Your task to perform on an android device: toggle notification dots Image 0: 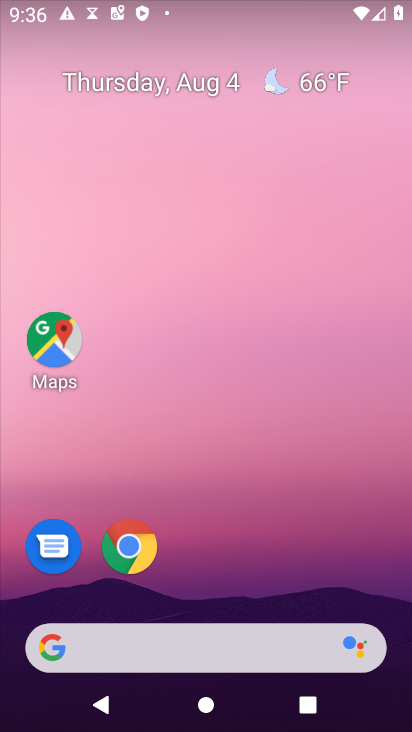
Step 0: press home button
Your task to perform on an android device: toggle notification dots Image 1: 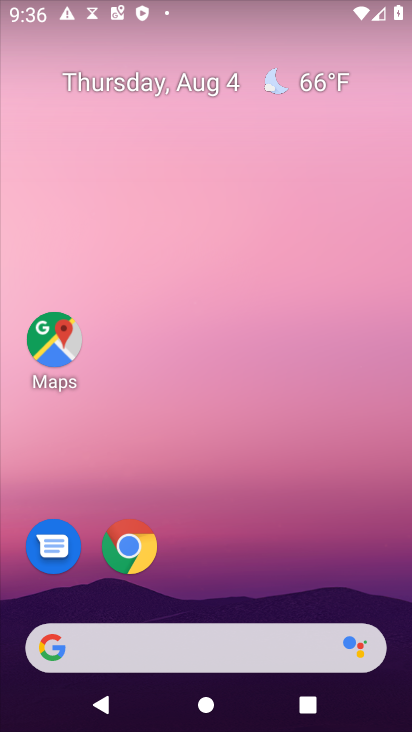
Step 1: drag from (250, 602) to (307, 88)
Your task to perform on an android device: toggle notification dots Image 2: 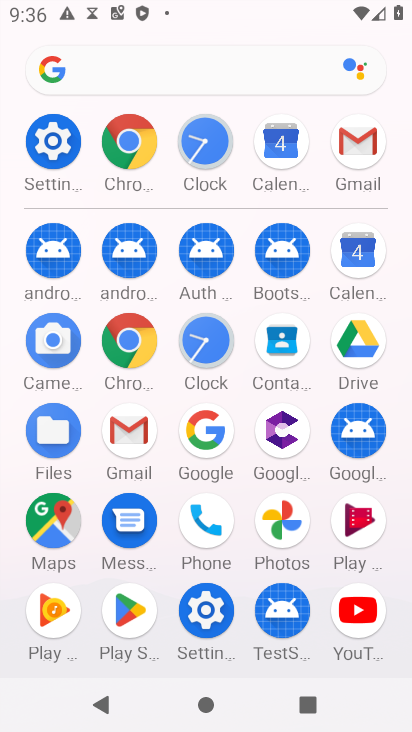
Step 2: click (46, 164)
Your task to perform on an android device: toggle notification dots Image 3: 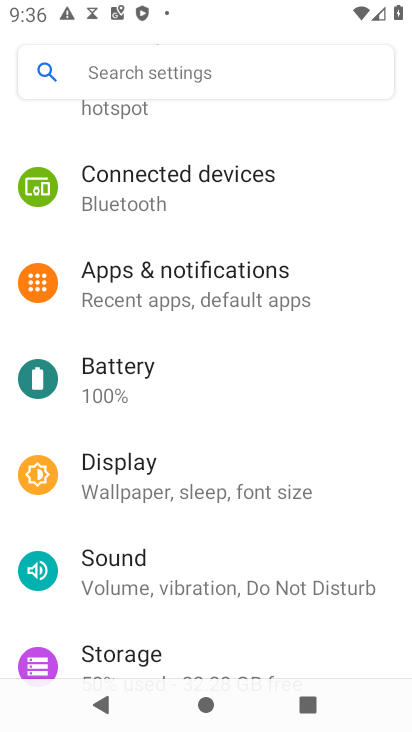
Step 3: click (208, 307)
Your task to perform on an android device: toggle notification dots Image 4: 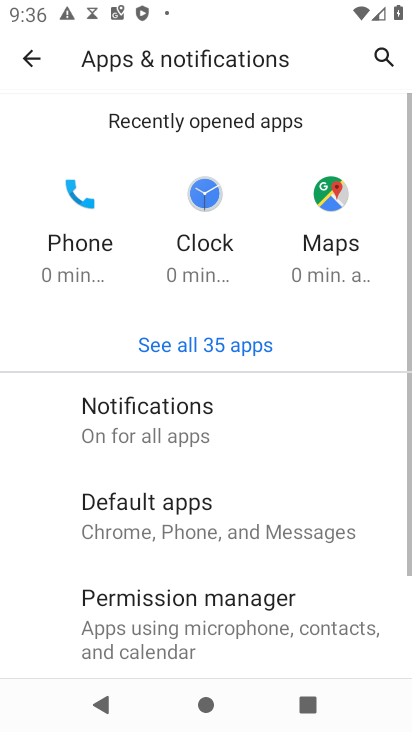
Step 4: click (138, 433)
Your task to perform on an android device: toggle notification dots Image 5: 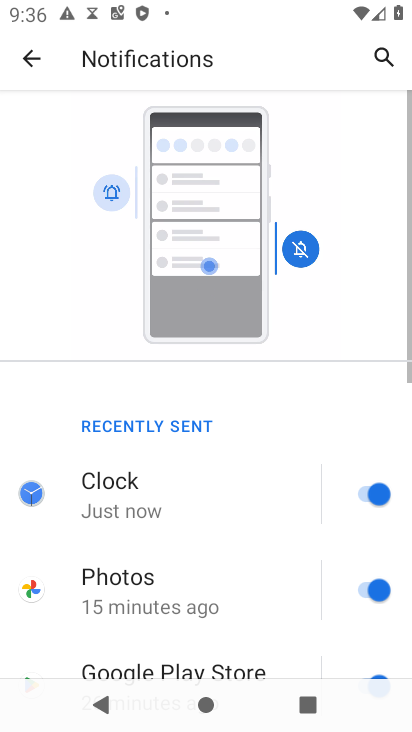
Step 5: drag from (345, 618) to (362, 15)
Your task to perform on an android device: toggle notification dots Image 6: 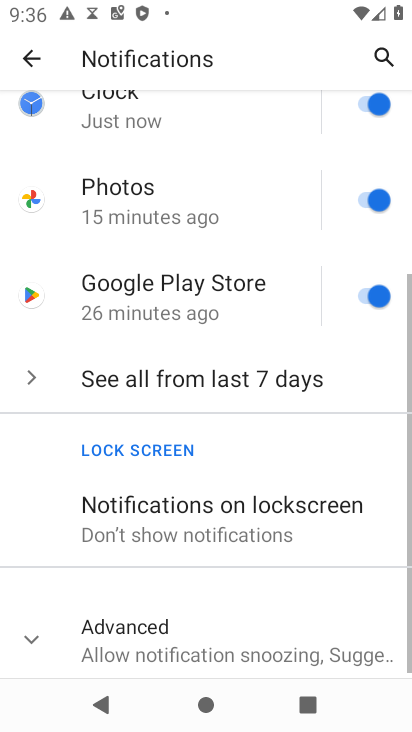
Step 6: click (131, 671)
Your task to perform on an android device: toggle notification dots Image 7: 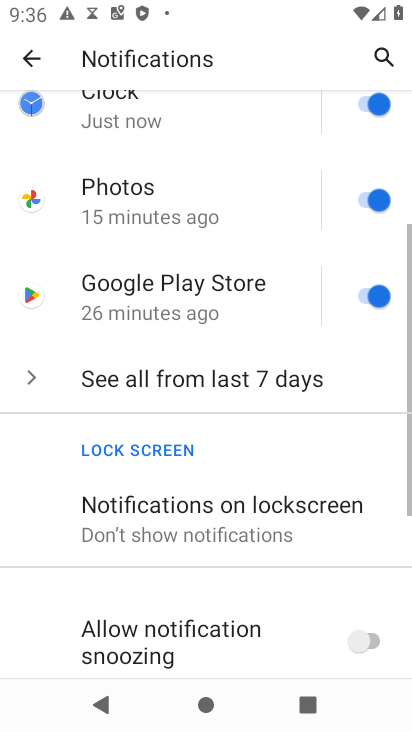
Step 7: drag from (314, 624) to (354, 140)
Your task to perform on an android device: toggle notification dots Image 8: 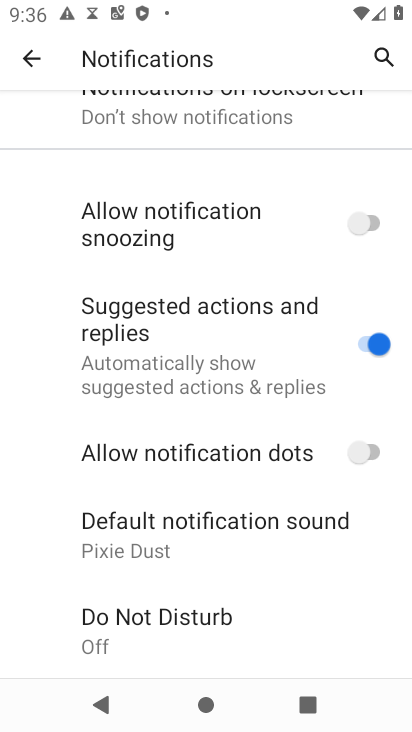
Step 8: click (360, 448)
Your task to perform on an android device: toggle notification dots Image 9: 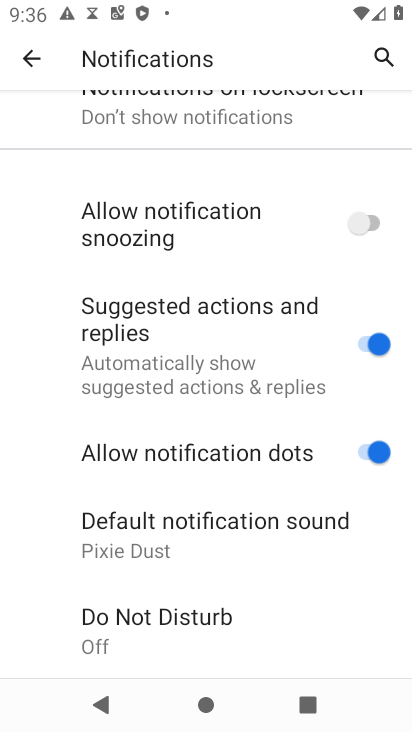
Step 9: task complete